Your task to perform on an android device: open the mobile data screen to see how much data has been used Image 0: 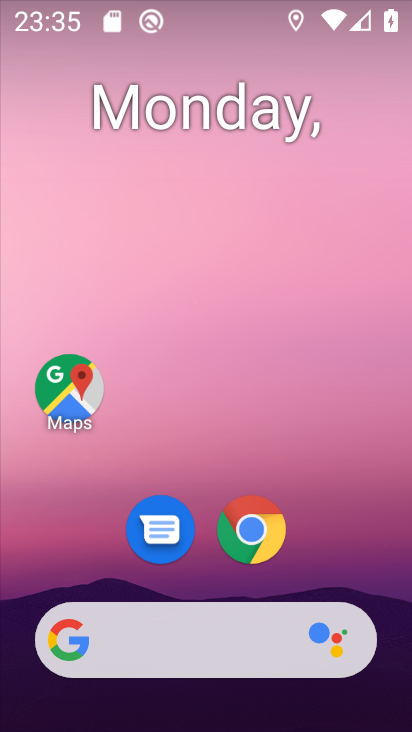
Step 0: drag from (338, 581) to (314, 95)
Your task to perform on an android device: open the mobile data screen to see how much data has been used Image 1: 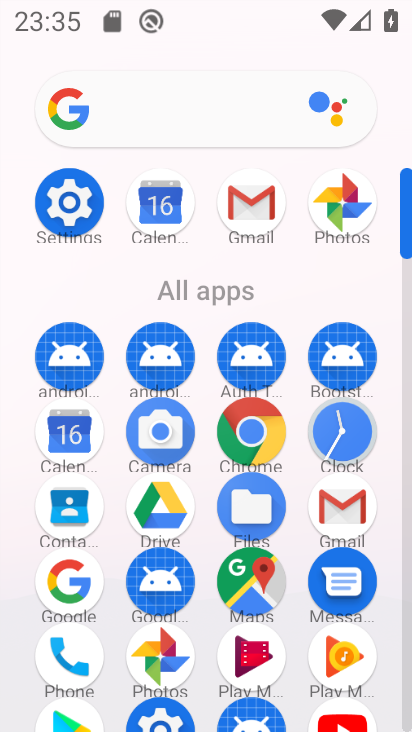
Step 1: click (61, 192)
Your task to perform on an android device: open the mobile data screen to see how much data has been used Image 2: 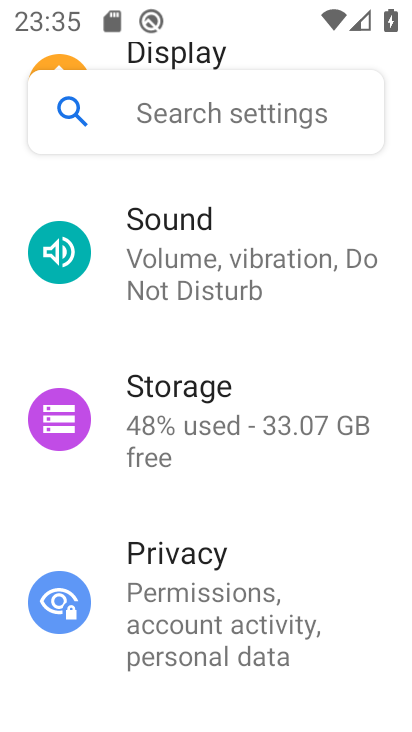
Step 2: drag from (304, 570) to (310, 268)
Your task to perform on an android device: open the mobile data screen to see how much data has been used Image 3: 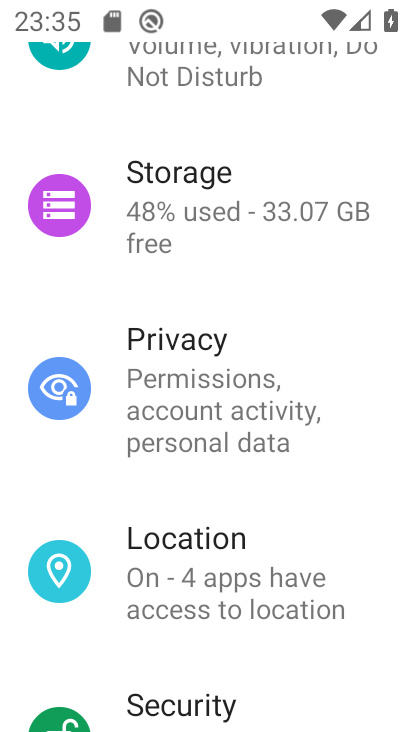
Step 3: drag from (312, 557) to (306, 656)
Your task to perform on an android device: open the mobile data screen to see how much data has been used Image 4: 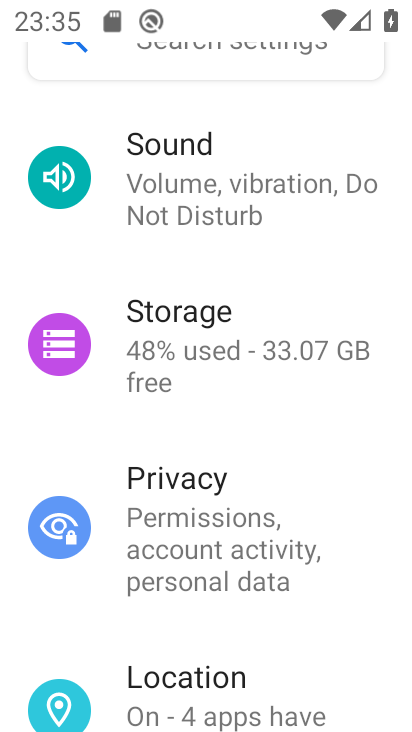
Step 4: drag from (325, 335) to (325, 652)
Your task to perform on an android device: open the mobile data screen to see how much data has been used Image 5: 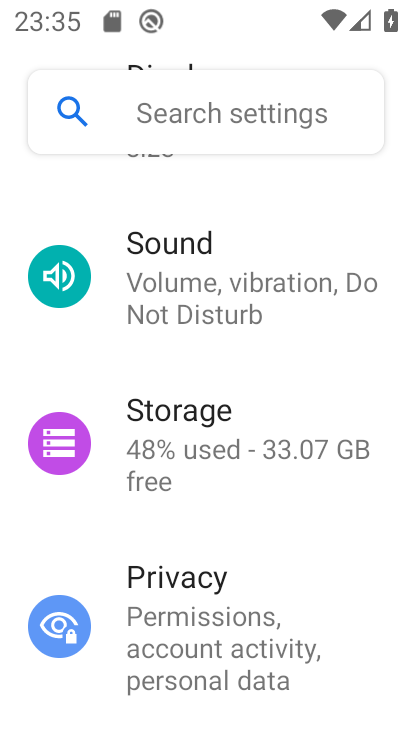
Step 5: drag from (325, 266) to (326, 572)
Your task to perform on an android device: open the mobile data screen to see how much data has been used Image 6: 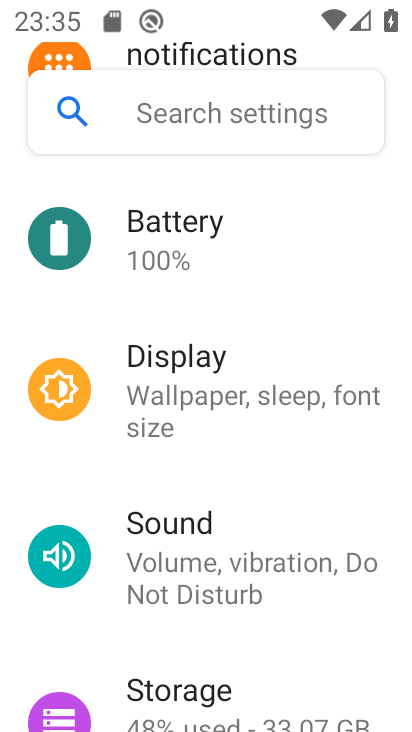
Step 6: drag from (296, 278) to (340, 713)
Your task to perform on an android device: open the mobile data screen to see how much data has been used Image 7: 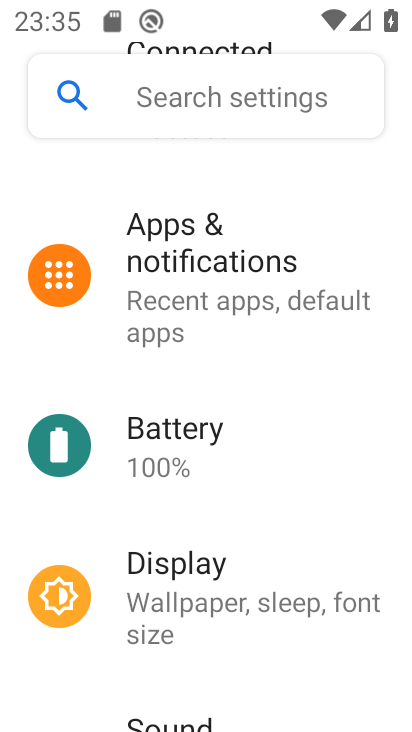
Step 7: drag from (352, 278) to (325, 561)
Your task to perform on an android device: open the mobile data screen to see how much data has been used Image 8: 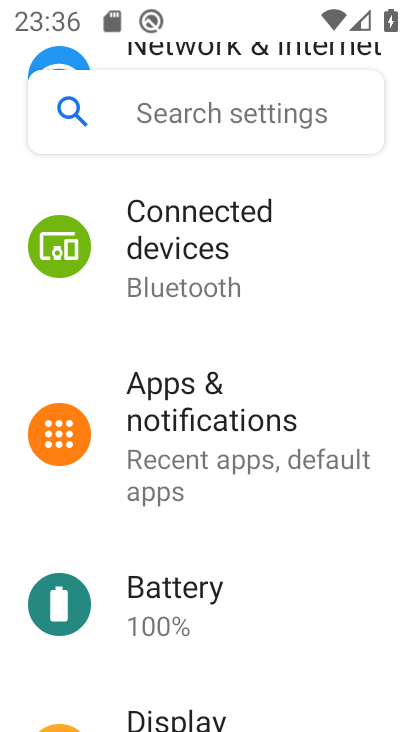
Step 8: drag from (308, 239) to (304, 520)
Your task to perform on an android device: open the mobile data screen to see how much data has been used Image 9: 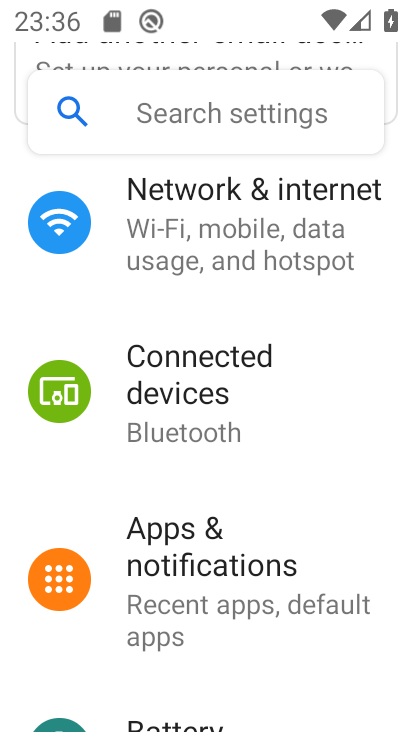
Step 9: click (267, 216)
Your task to perform on an android device: open the mobile data screen to see how much data has been used Image 10: 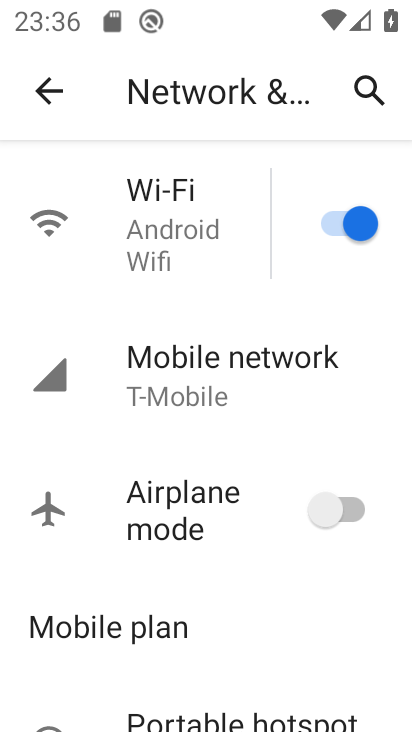
Step 10: click (197, 390)
Your task to perform on an android device: open the mobile data screen to see how much data has been used Image 11: 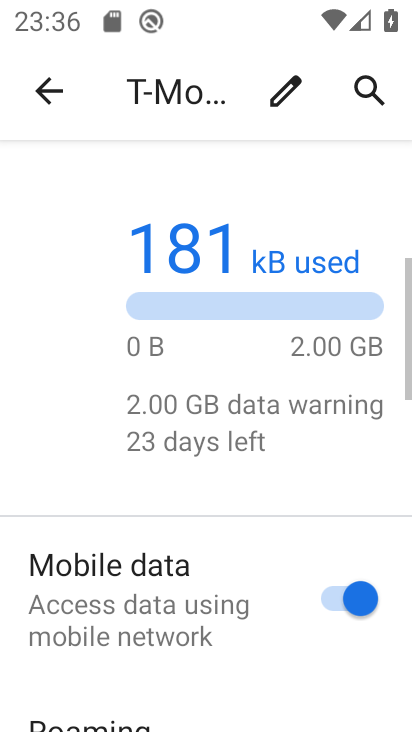
Step 11: drag from (244, 643) to (259, 310)
Your task to perform on an android device: open the mobile data screen to see how much data has been used Image 12: 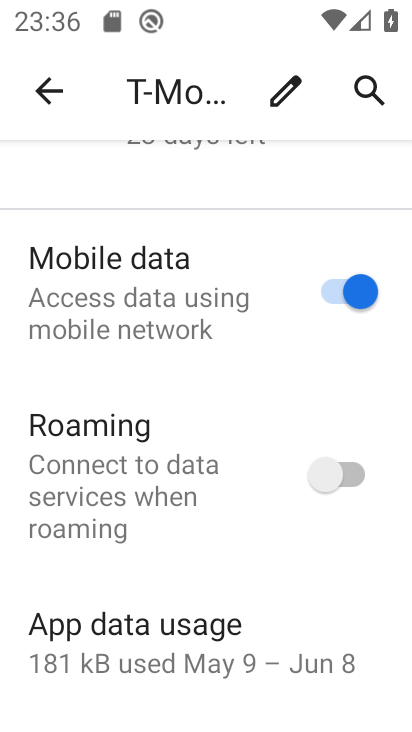
Step 12: click (230, 644)
Your task to perform on an android device: open the mobile data screen to see how much data has been used Image 13: 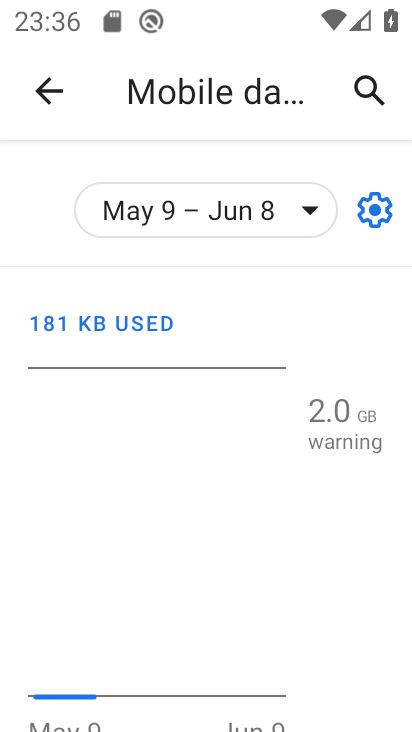
Step 13: task complete